Your task to perform on an android device: turn notification dots on Image 0: 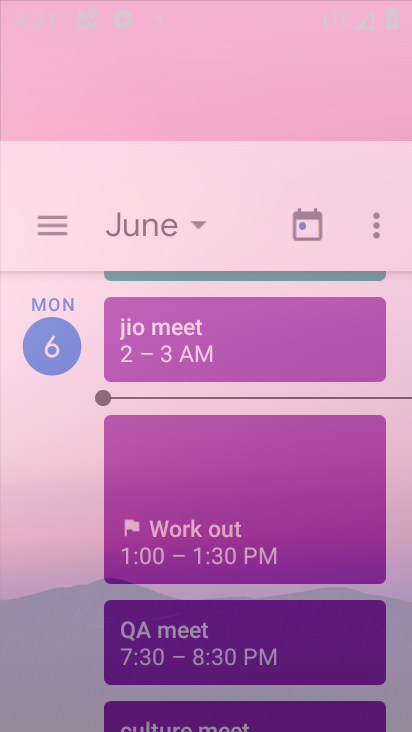
Step 0: click (166, 83)
Your task to perform on an android device: turn notification dots on Image 1: 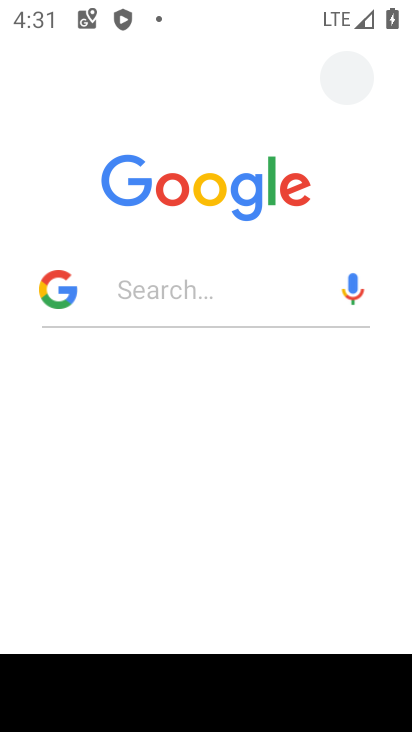
Step 1: press home button
Your task to perform on an android device: turn notification dots on Image 2: 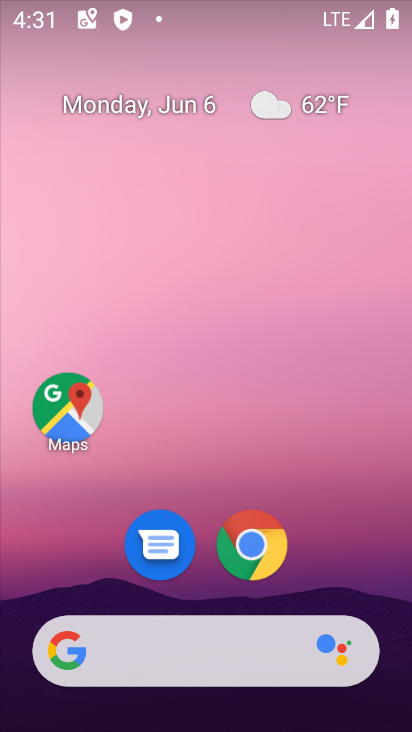
Step 2: drag from (202, 727) to (203, 129)
Your task to perform on an android device: turn notification dots on Image 3: 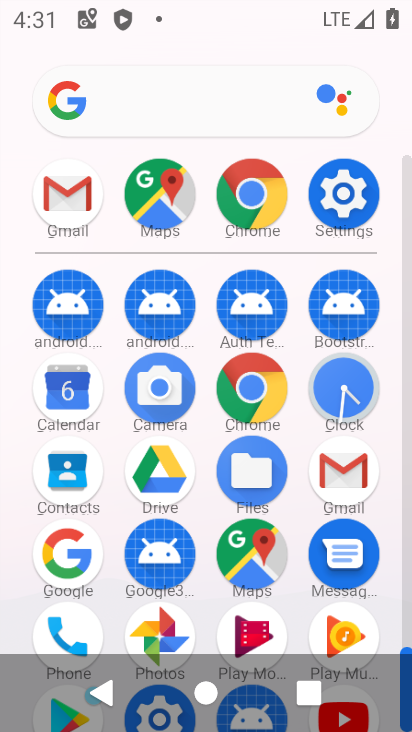
Step 3: click (339, 197)
Your task to perform on an android device: turn notification dots on Image 4: 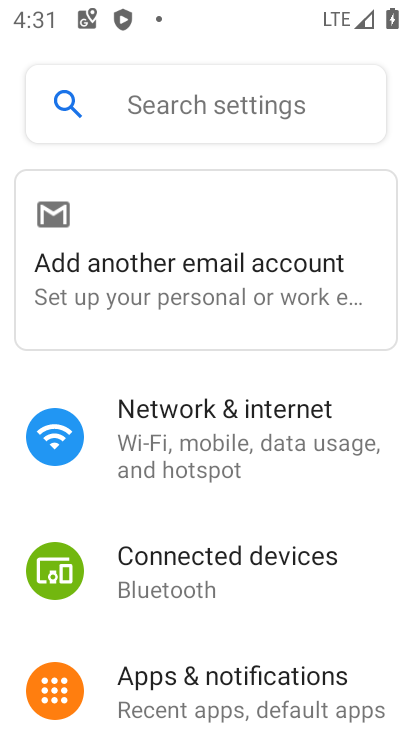
Step 4: click (217, 681)
Your task to perform on an android device: turn notification dots on Image 5: 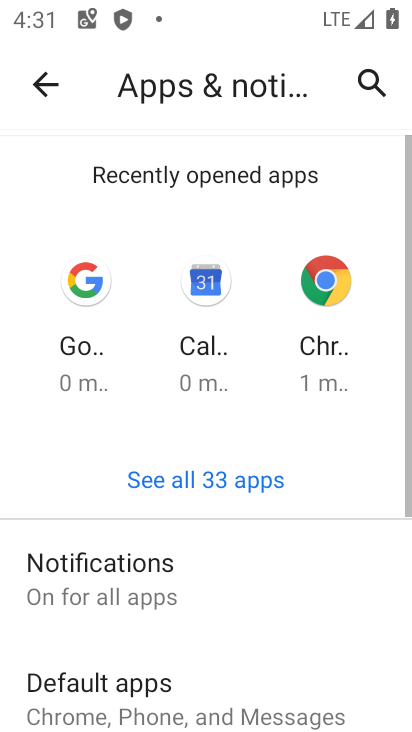
Step 5: click (113, 587)
Your task to perform on an android device: turn notification dots on Image 6: 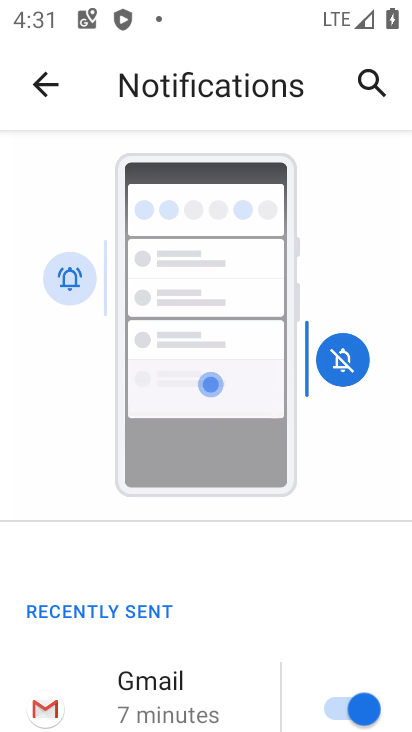
Step 6: drag from (224, 697) to (178, 308)
Your task to perform on an android device: turn notification dots on Image 7: 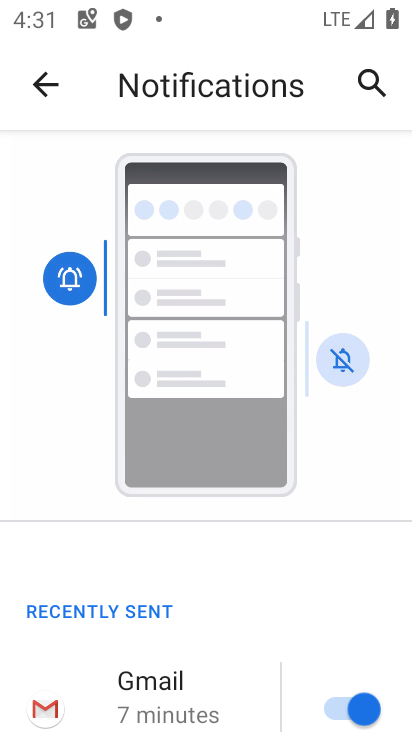
Step 7: drag from (267, 654) to (214, 268)
Your task to perform on an android device: turn notification dots on Image 8: 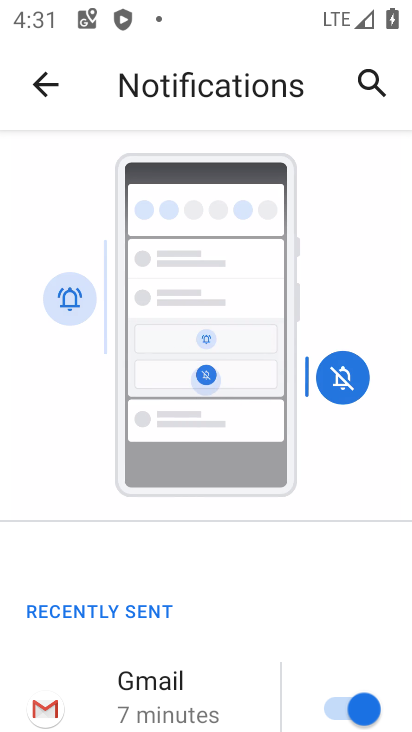
Step 8: drag from (230, 694) to (213, 337)
Your task to perform on an android device: turn notification dots on Image 9: 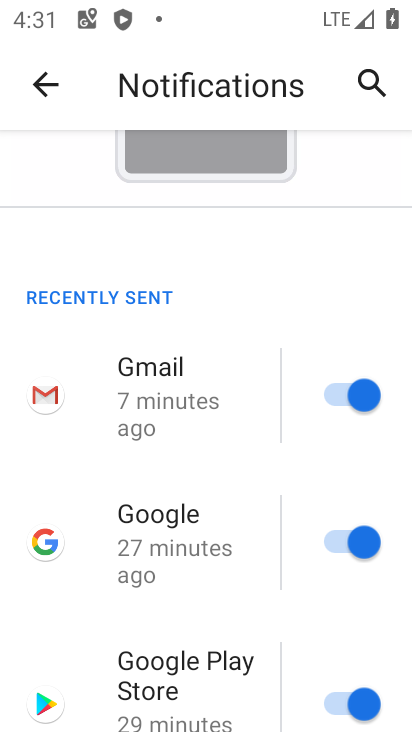
Step 9: drag from (233, 678) to (225, 293)
Your task to perform on an android device: turn notification dots on Image 10: 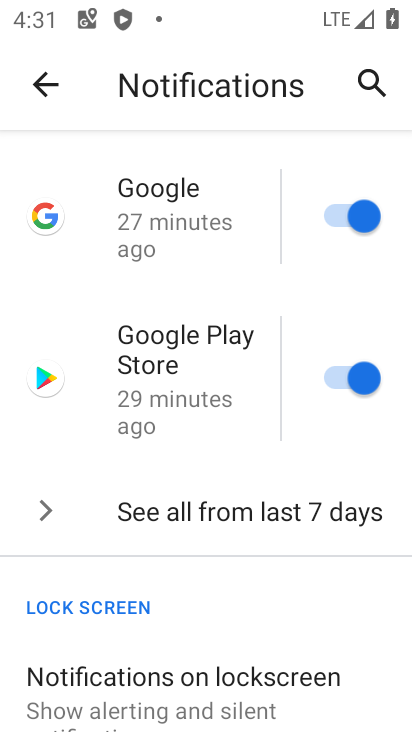
Step 10: drag from (219, 669) to (209, 316)
Your task to perform on an android device: turn notification dots on Image 11: 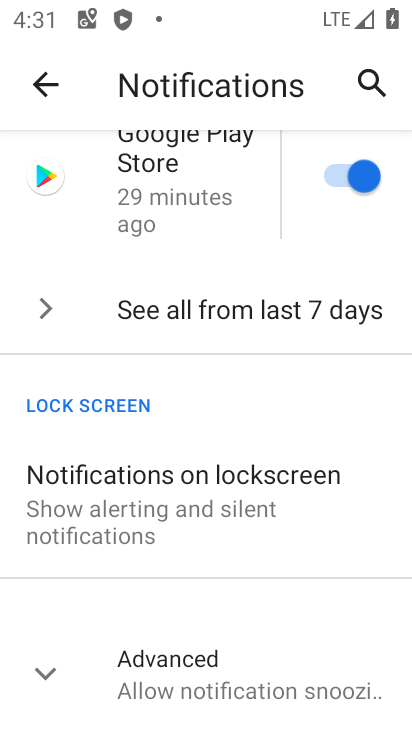
Step 11: click (167, 675)
Your task to perform on an android device: turn notification dots on Image 12: 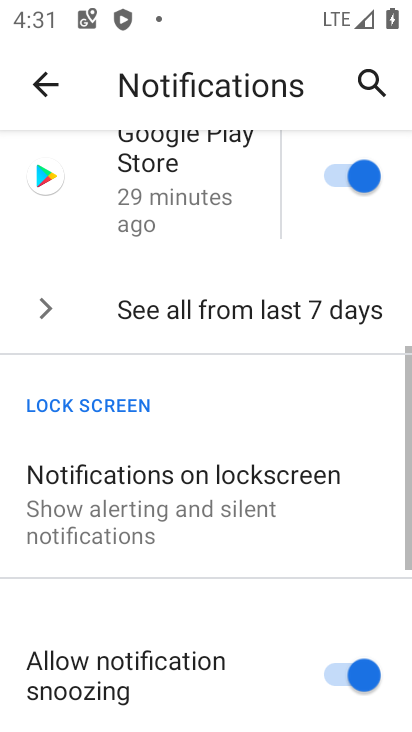
Step 12: task complete